Your task to perform on an android device: Show me popular videos on Youtube Image 0: 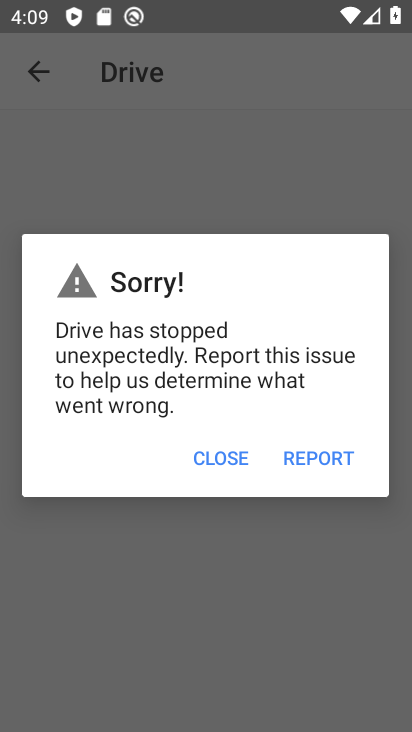
Step 0: press home button
Your task to perform on an android device: Show me popular videos on Youtube Image 1: 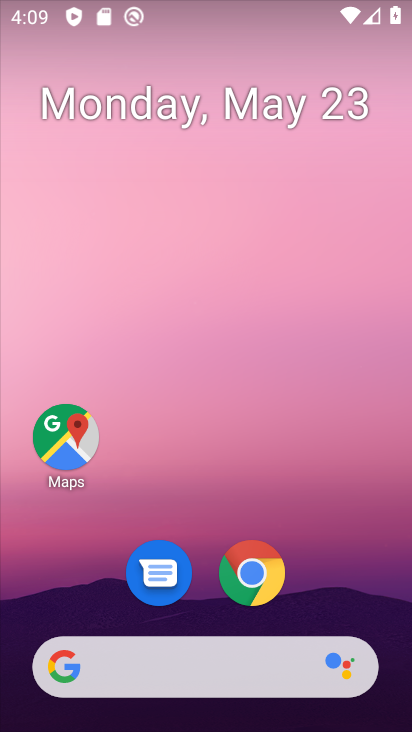
Step 1: drag from (213, 721) to (180, 109)
Your task to perform on an android device: Show me popular videos on Youtube Image 2: 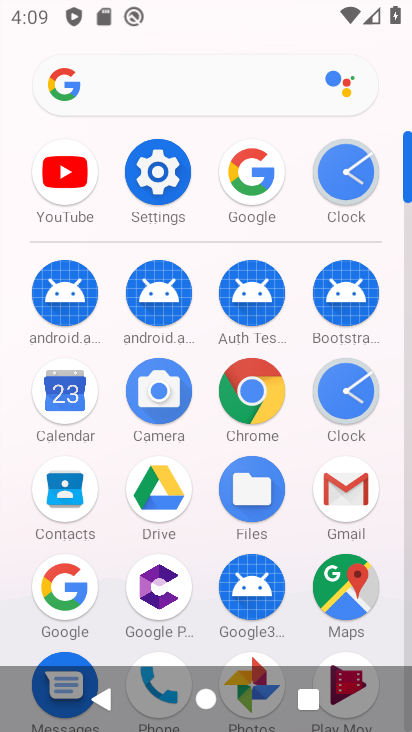
Step 2: drag from (303, 613) to (298, 210)
Your task to perform on an android device: Show me popular videos on Youtube Image 3: 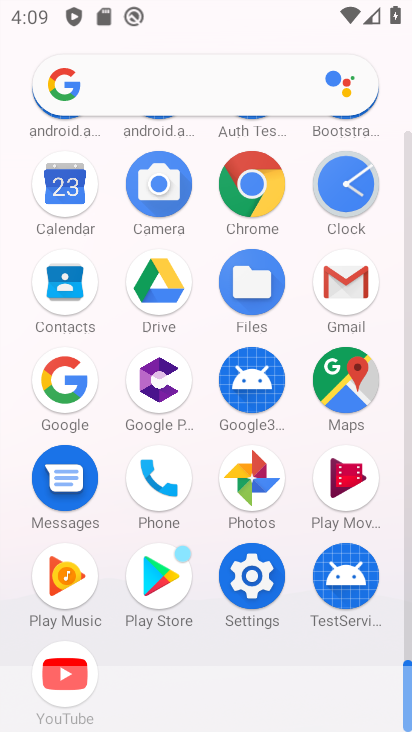
Step 3: click (69, 670)
Your task to perform on an android device: Show me popular videos on Youtube Image 4: 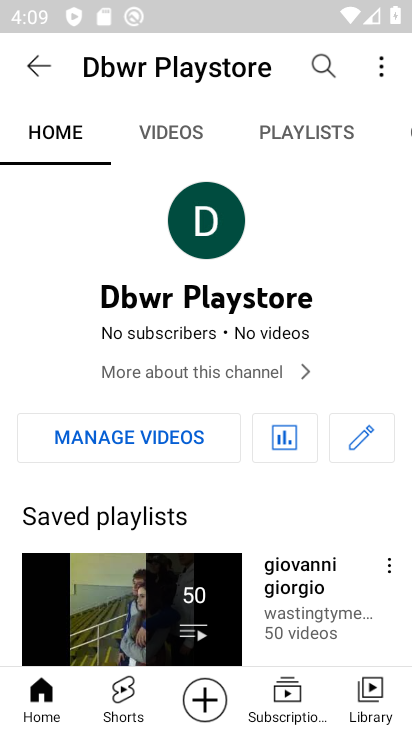
Step 4: click (321, 65)
Your task to perform on an android device: Show me popular videos on Youtube Image 5: 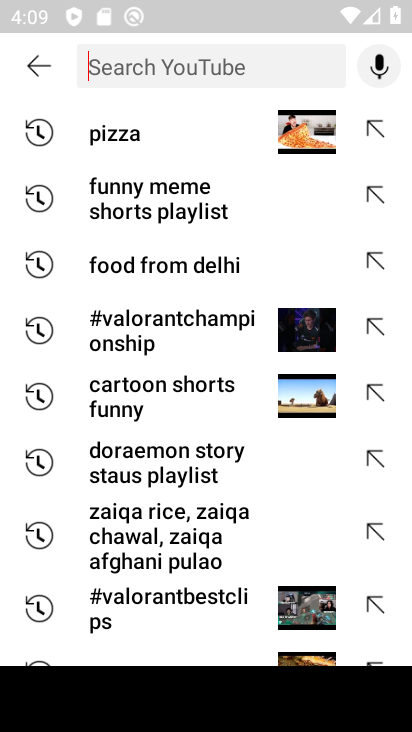
Step 5: type "popular videos "
Your task to perform on an android device: Show me popular videos on Youtube Image 6: 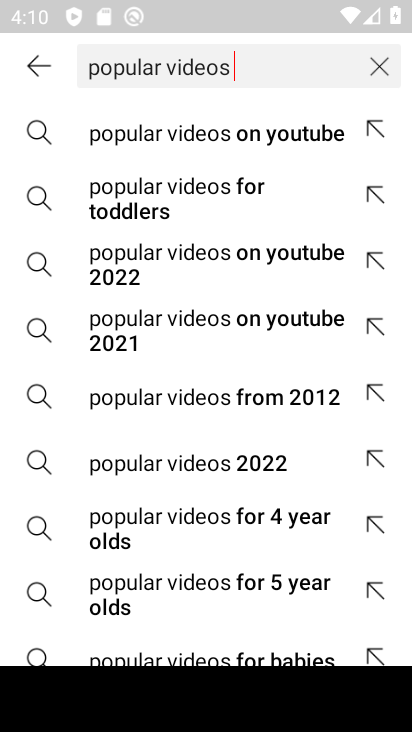
Step 6: click (237, 130)
Your task to perform on an android device: Show me popular videos on Youtube Image 7: 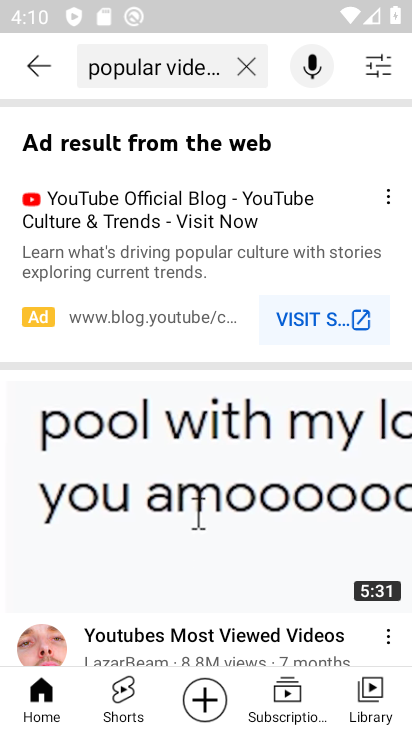
Step 7: drag from (177, 641) to (207, 290)
Your task to perform on an android device: Show me popular videos on Youtube Image 8: 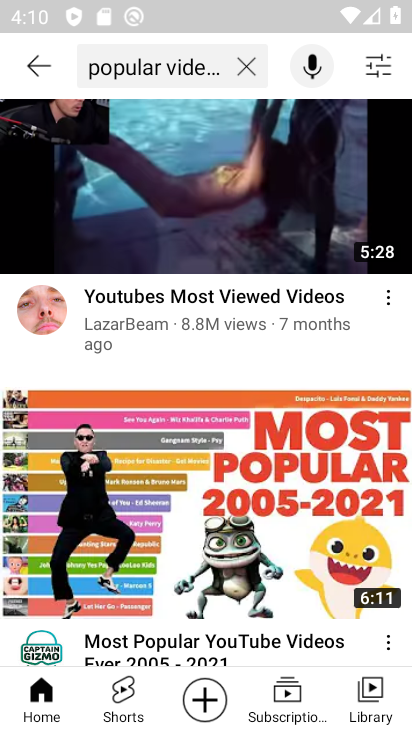
Step 8: click (242, 212)
Your task to perform on an android device: Show me popular videos on Youtube Image 9: 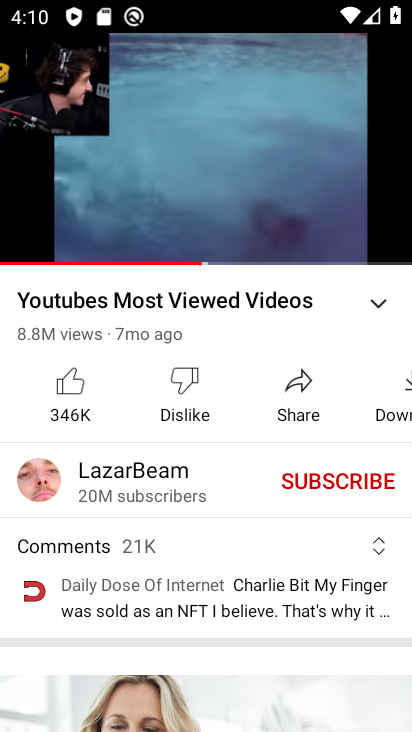
Step 9: task complete